Your task to perform on an android device: Open Google Image 0: 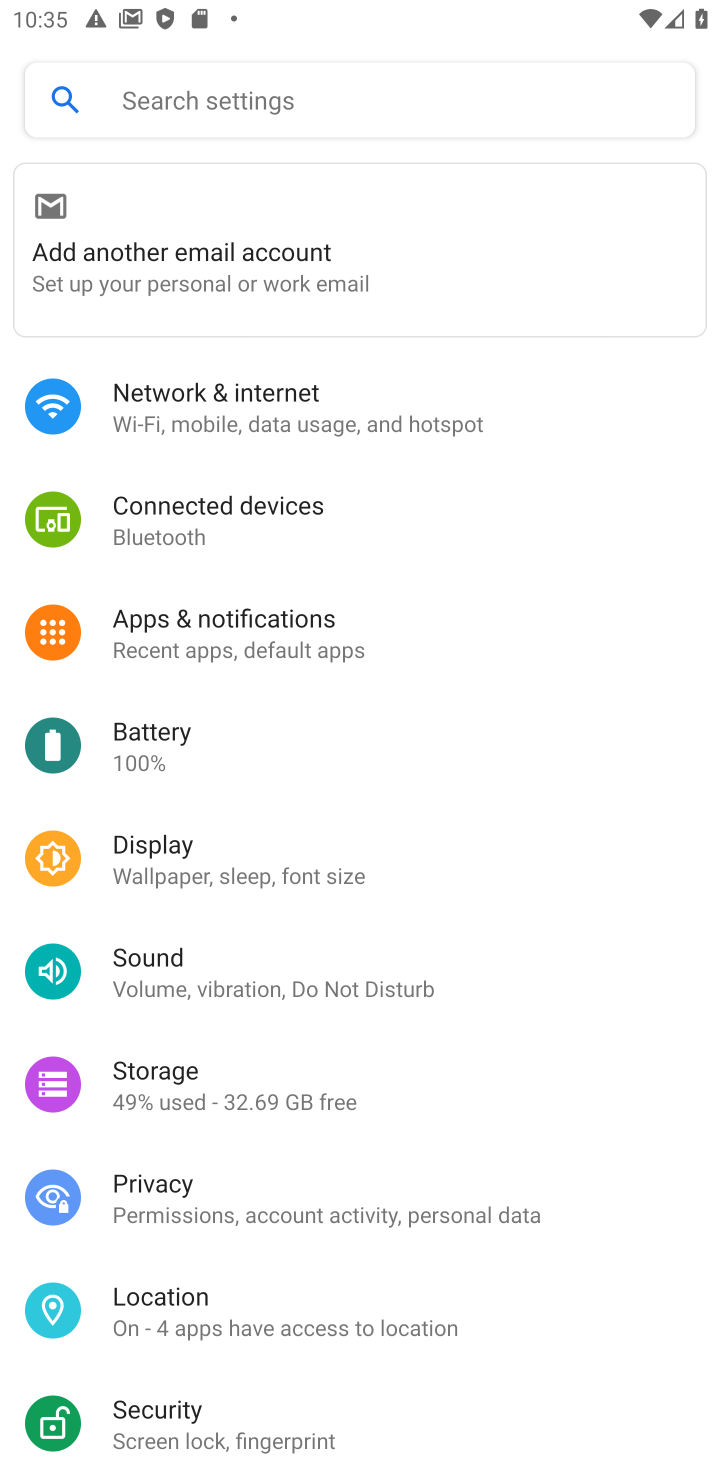
Step 0: press home button
Your task to perform on an android device: Open Google Image 1: 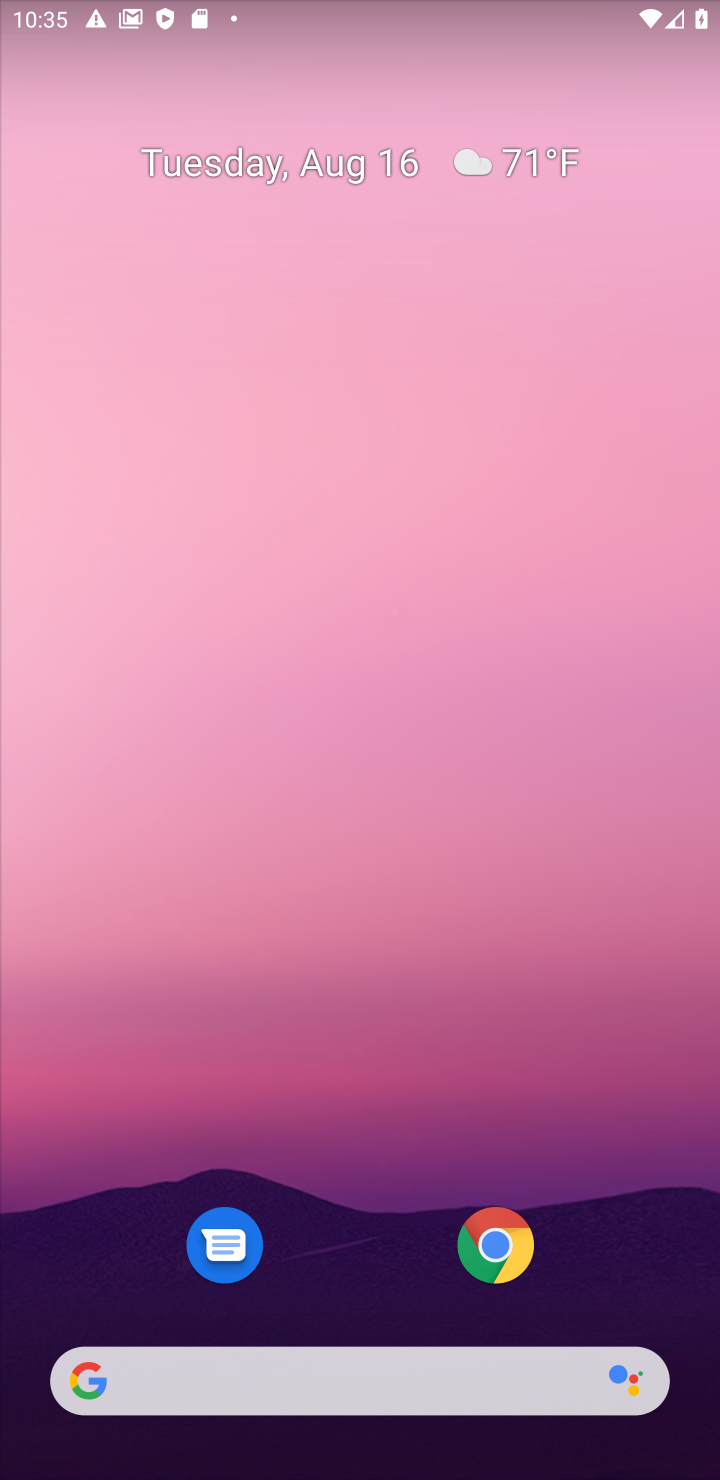
Step 1: drag from (335, 1162) to (299, 27)
Your task to perform on an android device: Open Google Image 2: 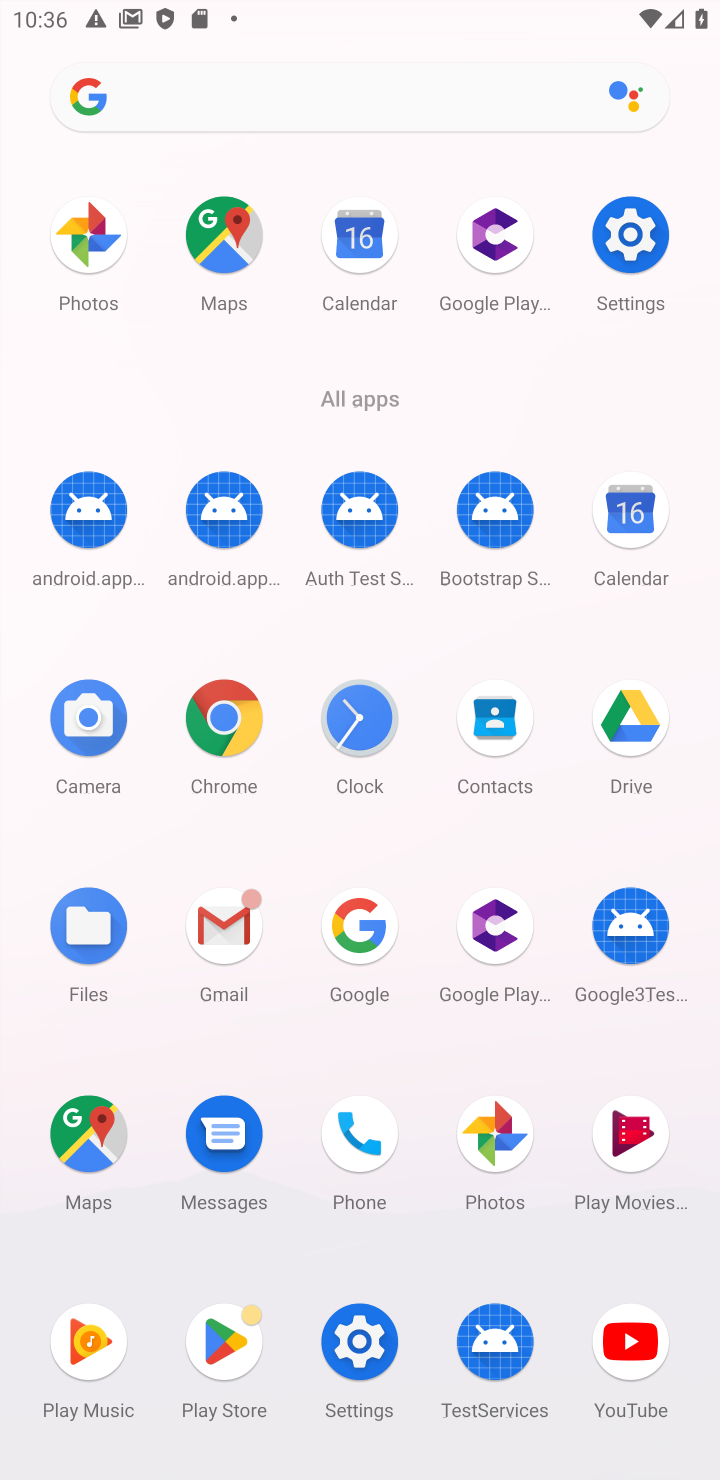
Step 2: click (350, 949)
Your task to perform on an android device: Open Google Image 3: 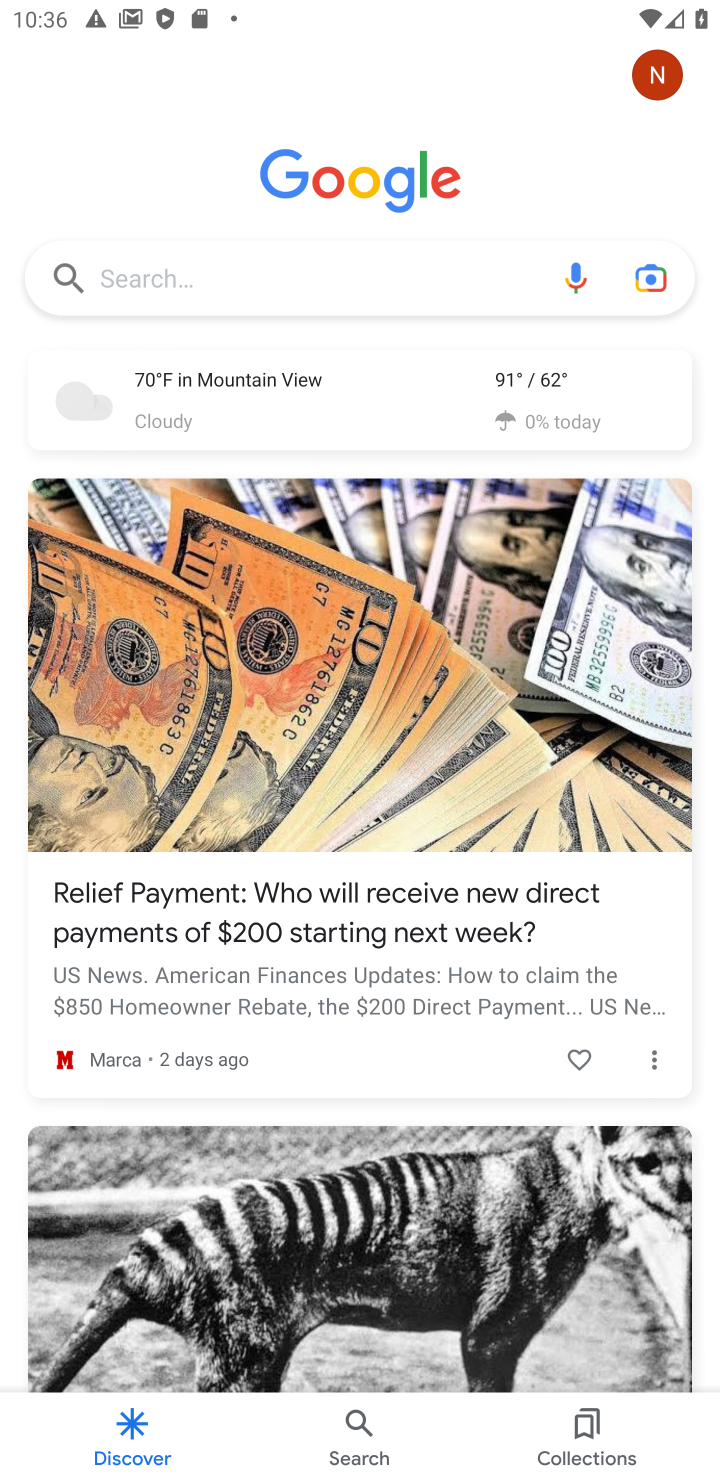
Step 3: task complete